Your task to perform on an android device: Go to eBay Image 0: 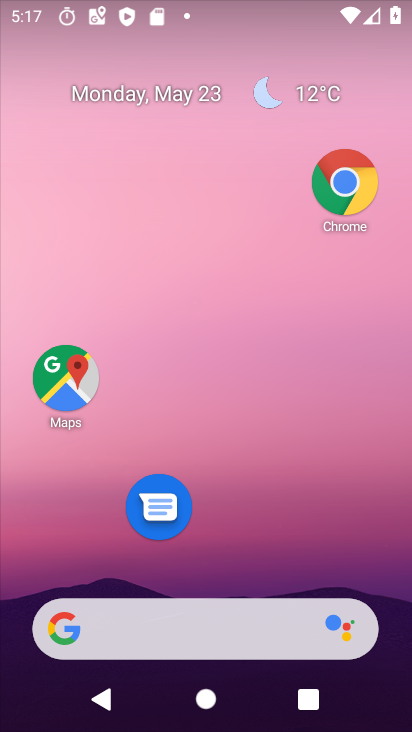
Step 0: click (189, 623)
Your task to perform on an android device: Go to eBay Image 1: 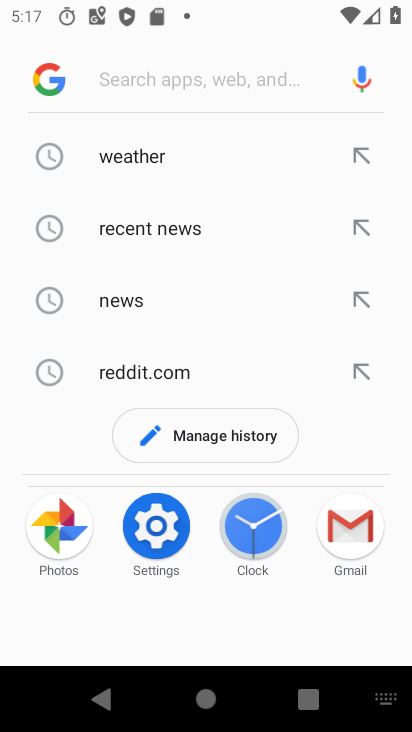
Step 1: type "ebayu"
Your task to perform on an android device: Go to eBay Image 2: 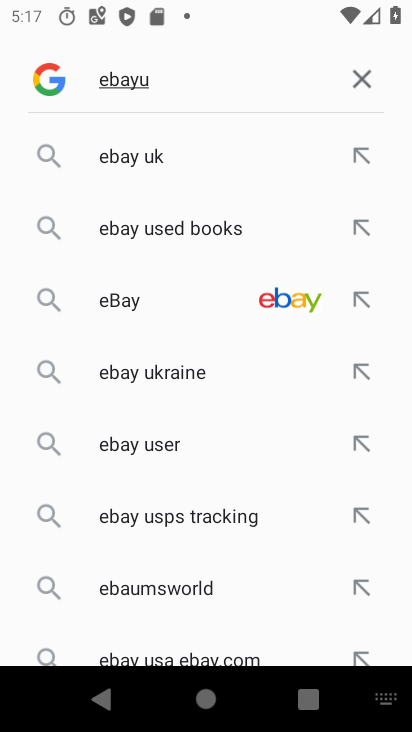
Step 2: click (299, 295)
Your task to perform on an android device: Go to eBay Image 3: 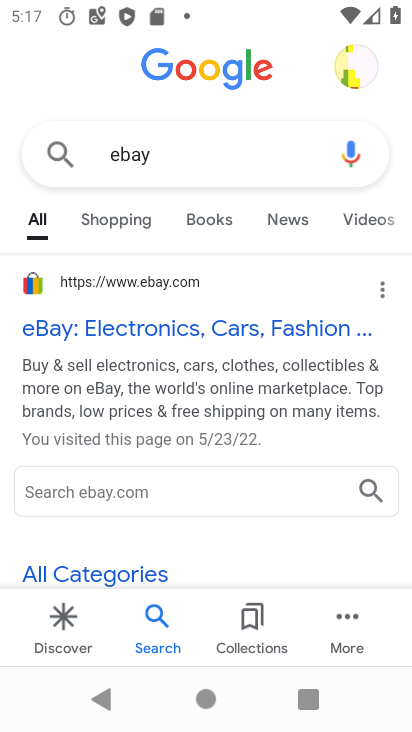
Step 3: click (151, 328)
Your task to perform on an android device: Go to eBay Image 4: 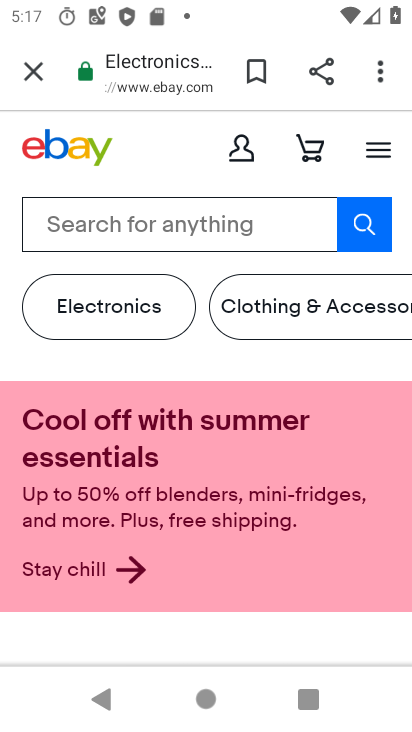
Step 4: task complete